Your task to perform on an android device: Search for Mexican restaurants on Maps Image 0: 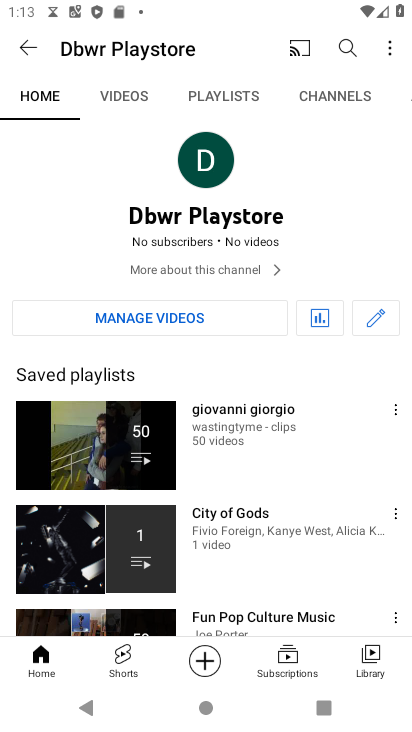
Step 0: press home button
Your task to perform on an android device: Search for Mexican restaurants on Maps Image 1: 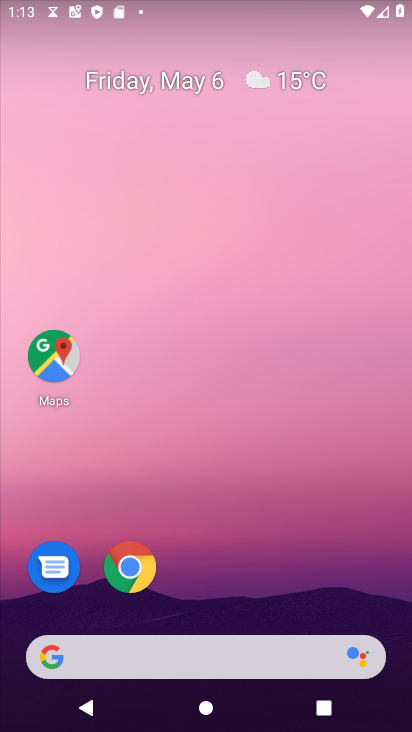
Step 1: drag from (200, 558) to (277, 36)
Your task to perform on an android device: Search for Mexican restaurants on Maps Image 2: 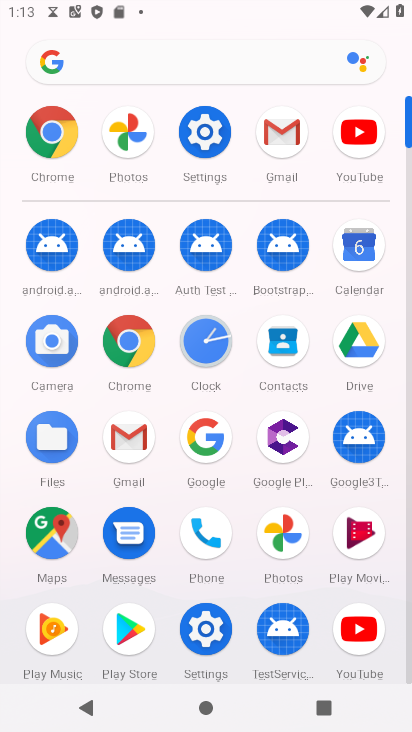
Step 2: click (31, 529)
Your task to perform on an android device: Search for Mexican restaurants on Maps Image 3: 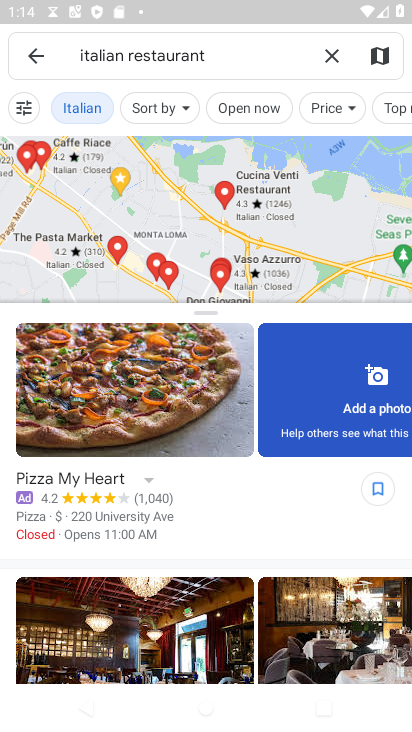
Step 3: click (331, 50)
Your task to perform on an android device: Search for Mexican restaurants on Maps Image 4: 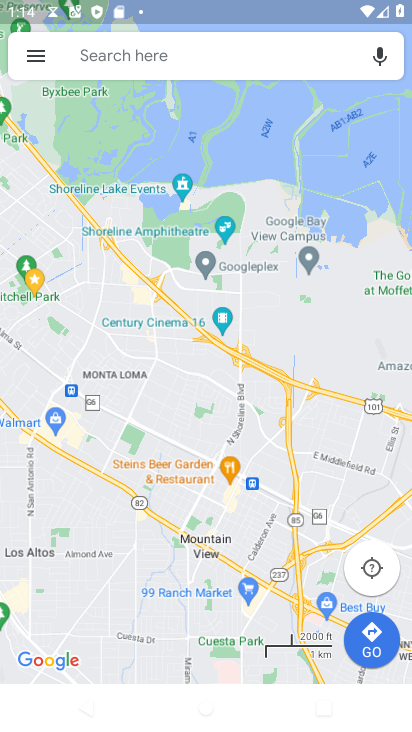
Step 4: click (237, 52)
Your task to perform on an android device: Search for Mexican restaurants on Maps Image 5: 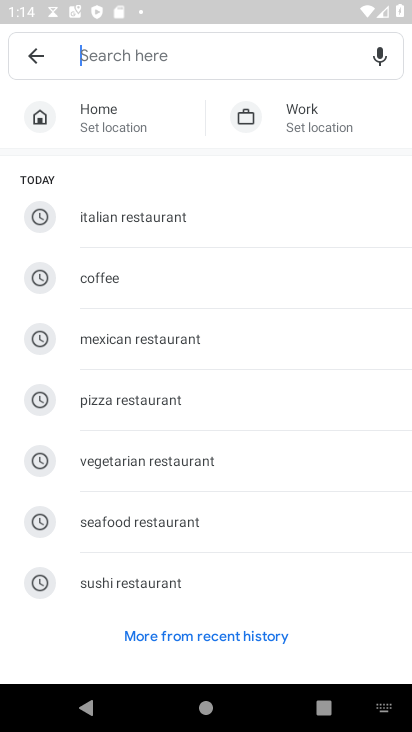
Step 5: click (163, 333)
Your task to perform on an android device: Search for Mexican restaurants on Maps Image 6: 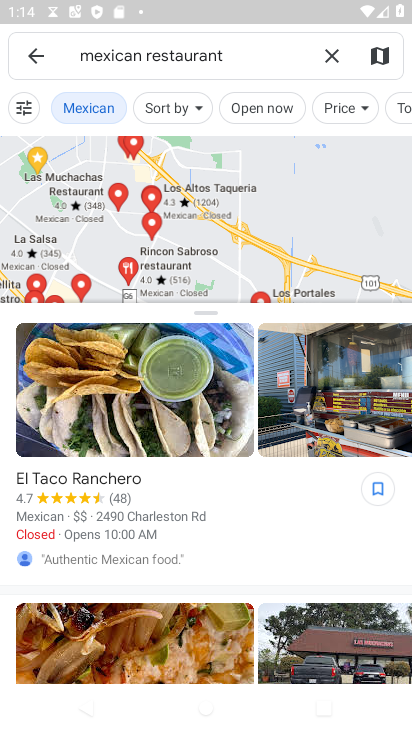
Step 6: task complete